Your task to perform on an android device: Open display settings Image 0: 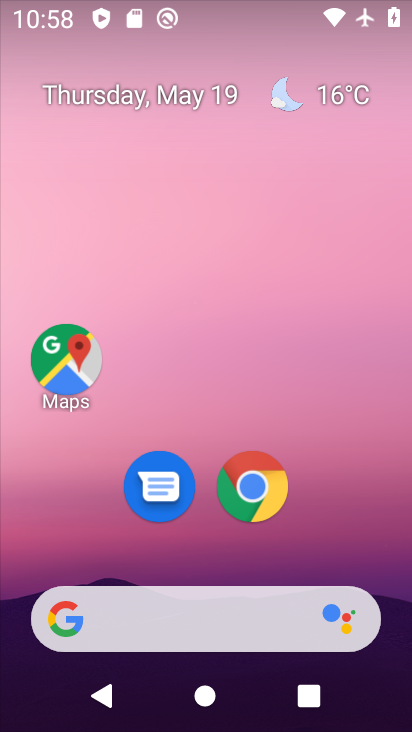
Step 0: drag from (351, 540) to (300, 145)
Your task to perform on an android device: Open display settings Image 1: 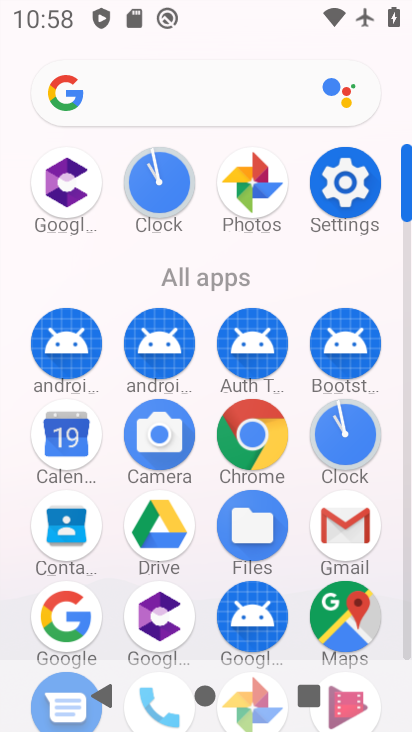
Step 1: click (340, 211)
Your task to perform on an android device: Open display settings Image 2: 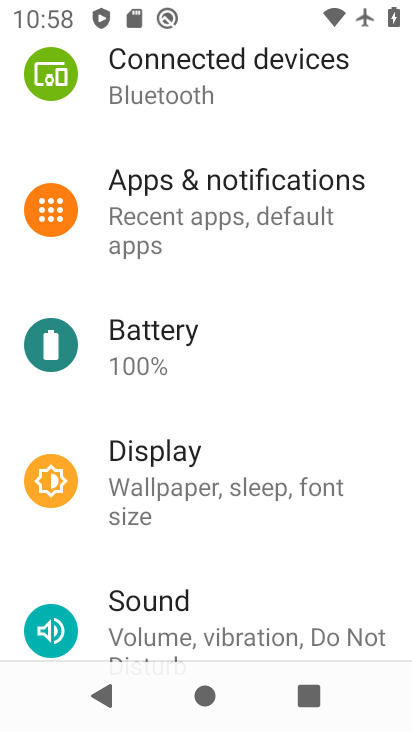
Step 2: click (214, 495)
Your task to perform on an android device: Open display settings Image 3: 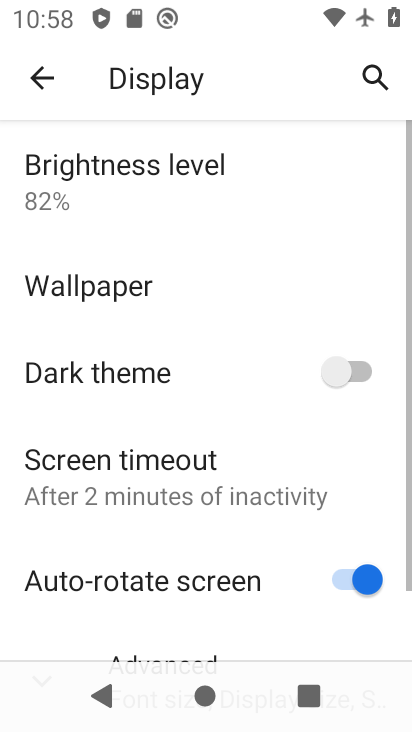
Step 3: task complete